Your task to perform on an android device: Set the phone to "Do not disturb". Image 0: 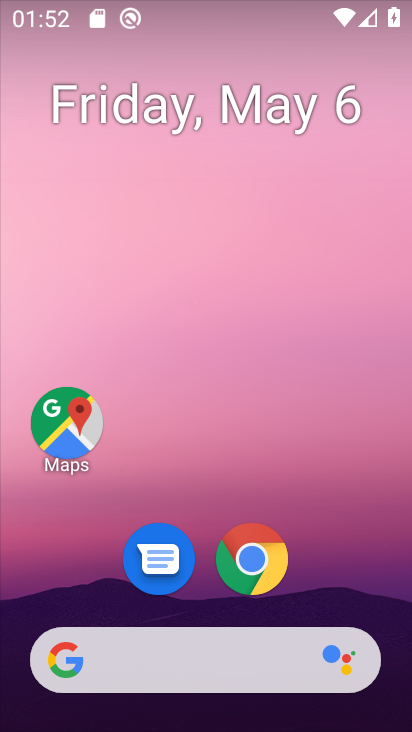
Step 0: drag from (326, 610) to (312, 76)
Your task to perform on an android device: Set the phone to "Do not disturb". Image 1: 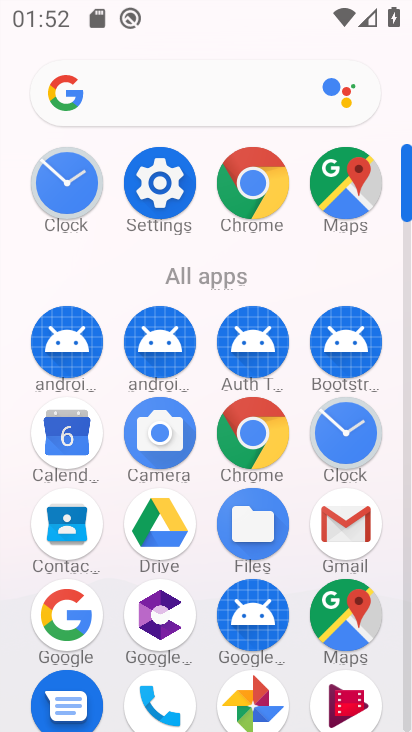
Step 1: click (157, 175)
Your task to perform on an android device: Set the phone to "Do not disturb". Image 2: 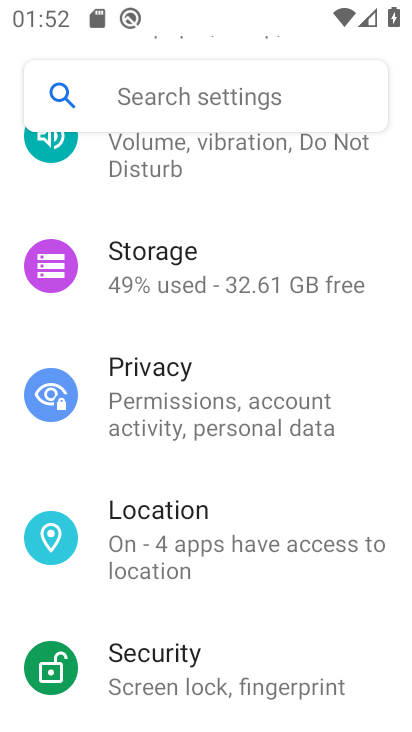
Step 2: drag from (262, 632) to (277, 277)
Your task to perform on an android device: Set the phone to "Do not disturb". Image 3: 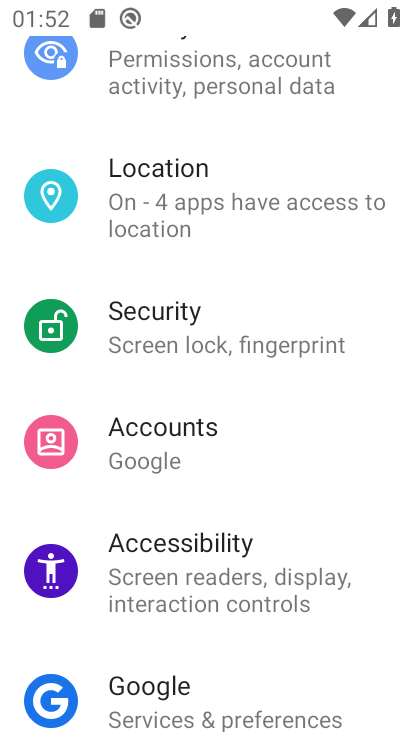
Step 3: drag from (231, 163) to (275, 628)
Your task to perform on an android device: Set the phone to "Do not disturb". Image 4: 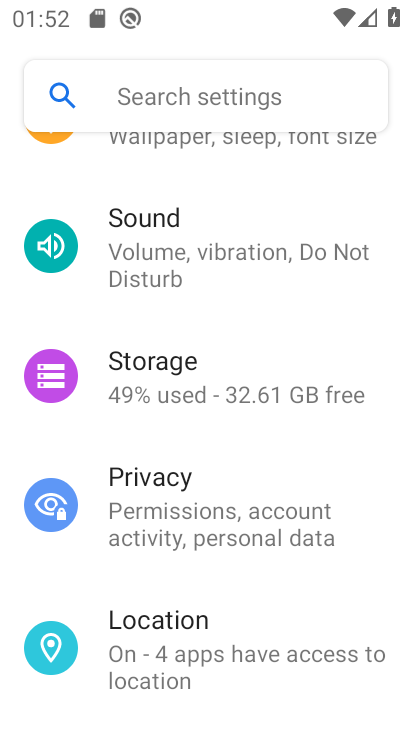
Step 4: click (211, 267)
Your task to perform on an android device: Set the phone to "Do not disturb". Image 5: 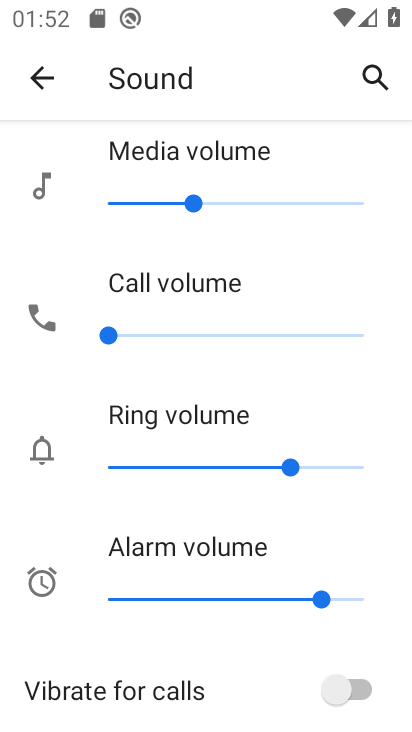
Step 5: drag from (251, 651) to (277, 140)
Your task to perform on an android device: Set the phone to "Do not disturb". Image 6: 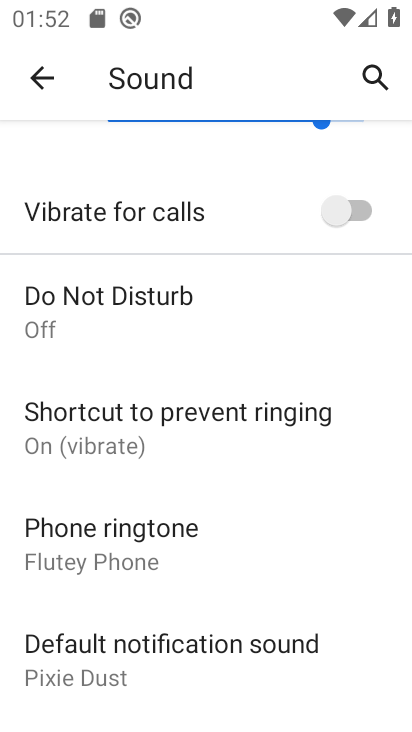
Step 6: click (171, 307)
Your task to perform on an android device: Set the phone to "Do not disturb". Image 7: 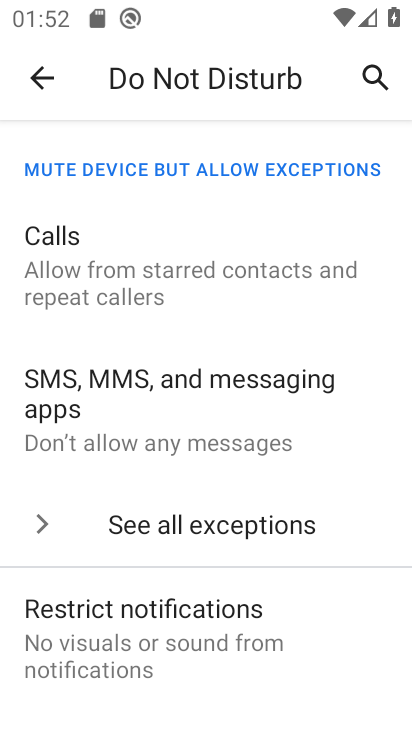
Step 7: drag from (298, 680) to (301, 52)
Your task to perform on an android device: Set the phone to "Do not disturb". Image 8: 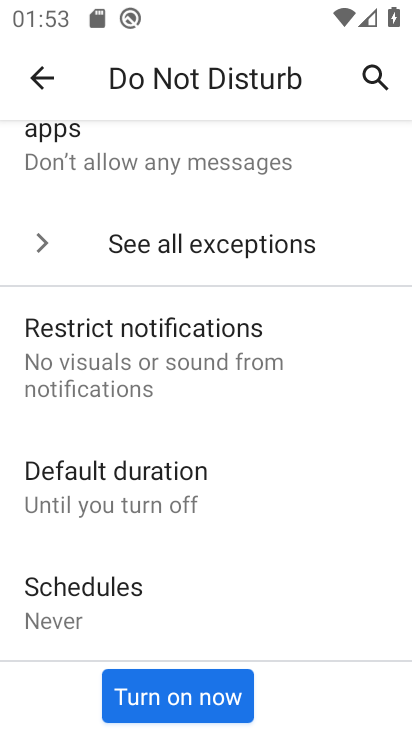
Step 8: click (195, 690)
Your task to perform on an android device: Set the phone to "Do not disturb". Image 9: 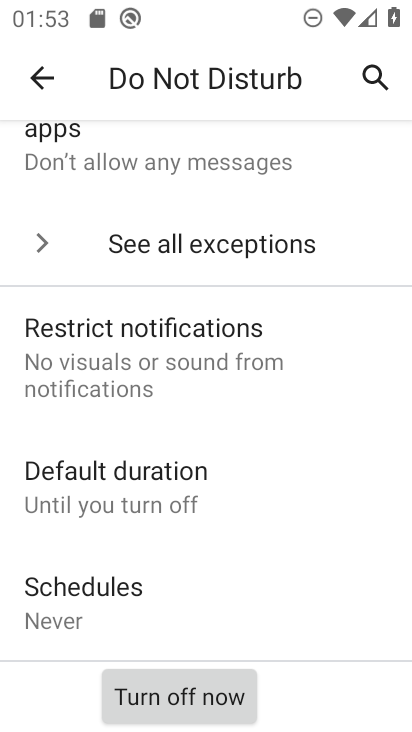
Step 9: click (217, 708)
Your task to perform on an android device: Set the phone to "Do not disturb". Image 10: 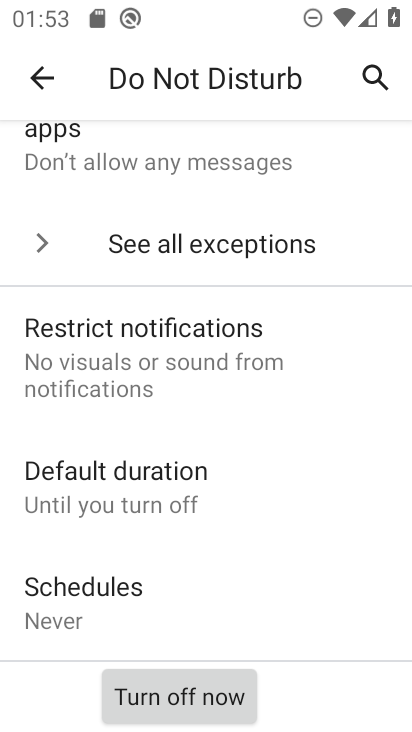
Step 10: click (217, 708)
Your task to perform on an android device: Set the phone to "Do not disturb". Image 11: 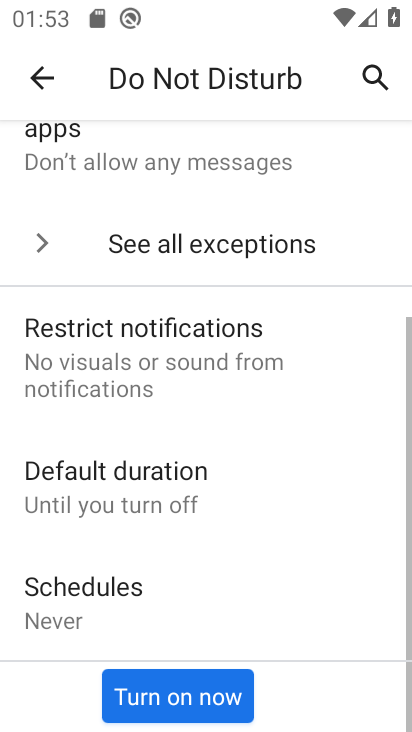
Step 11: click (217, 708)
Your task to perform on an android device: Set the phone to "Do not disturb". Image 12: 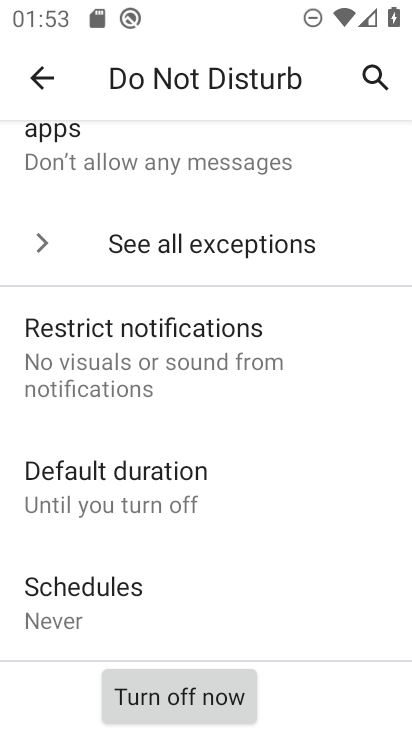
Step 12: click (214, 689)
Your task to perform on an android device: Set the phone to "Do not disturb". Image 13: 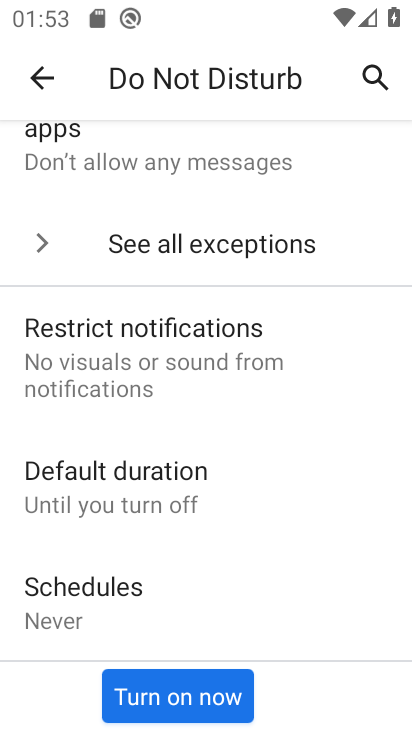
Step 13: task complete